Your task to perform on an android device: Open calendar and show me the fourth week of next month Image 0: 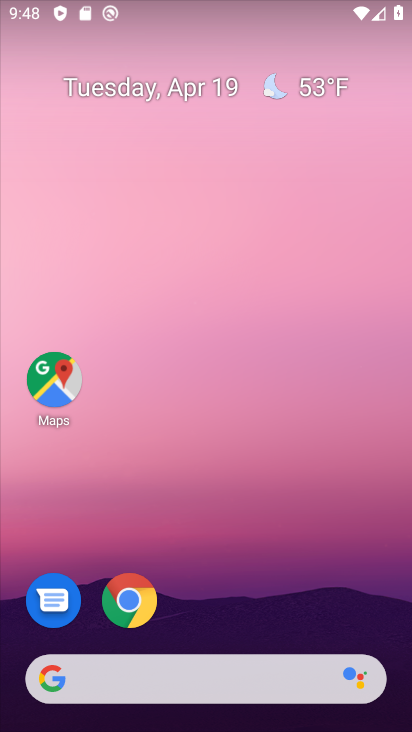
Step 0: drag from (181, 655) to (275, 132)
Your task to perform on an android device: Open calendar and show me the fourth week of next month Image 1: 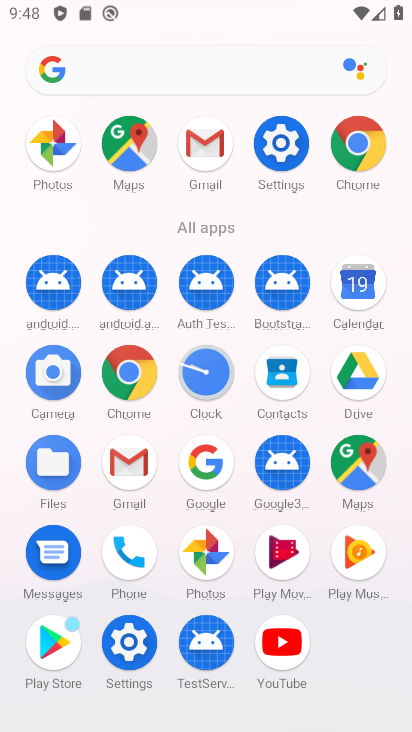
Step 1: click (364, 289)
Your task to perform on an android device: Open calendar and show me the fourth week of next month Image 2: 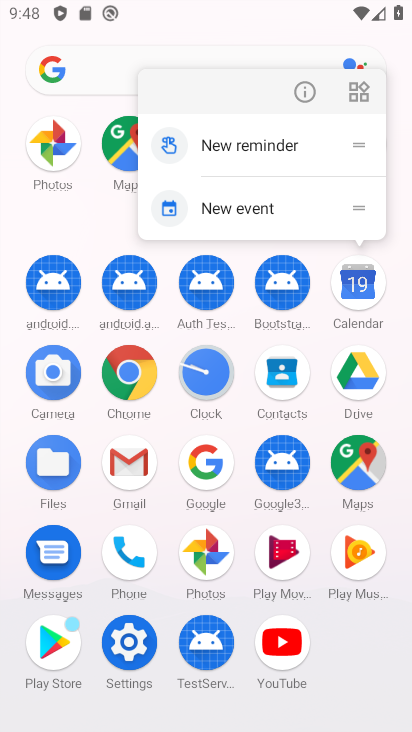
Step 2: click (361, 291)
Your task to perform on an android device: Open calendar and show me the fourth week of next month Image 3: 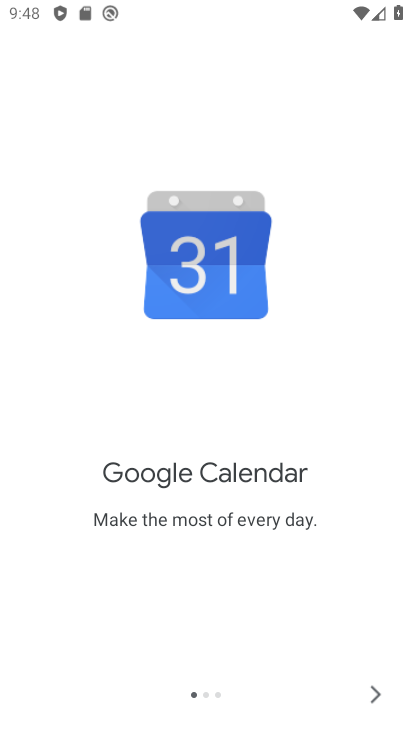
Step 3: click (373, 691)
Your task to perform on an android device: Open calendar and show me the fourth week of next month Image 4: 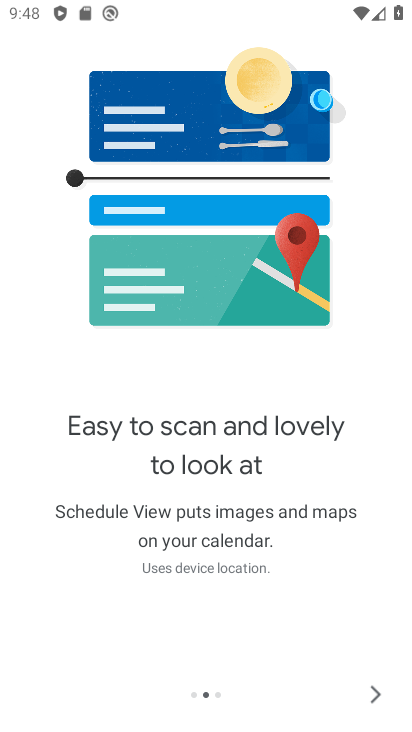
Step 4: click (373, 691)
Your task to perform on an android device: Open calendar and show me the fourth week of next month Image 5: 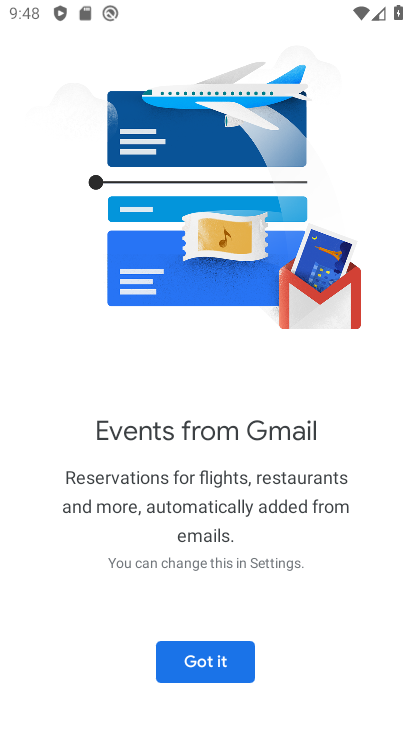
Step 5: click (179, 656)
Your task to perform on an android device: Open calendar and show me the fourth week of next month Image 6: 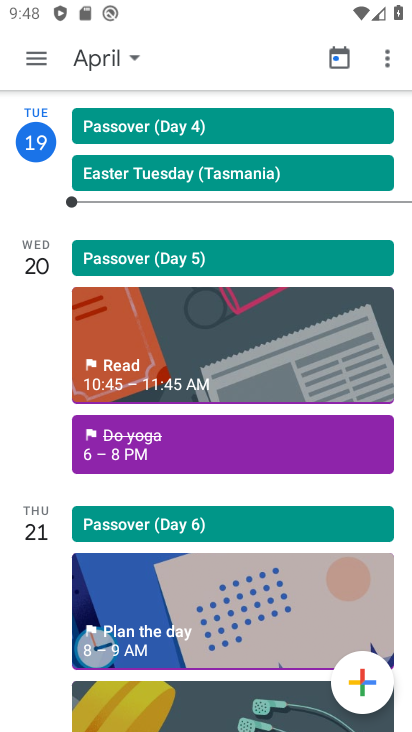
Step 6: click (38, 59)
Your task to perform on an android device: Open calendar and show me the fourth week of next month Image 7: 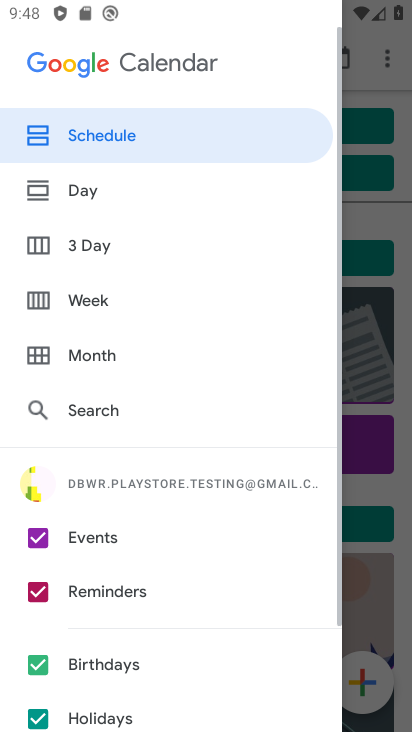
Step 7: click (131, 295)
Your task to perform on an android device: Open calendar and show me the fourth week of next month Image 8: 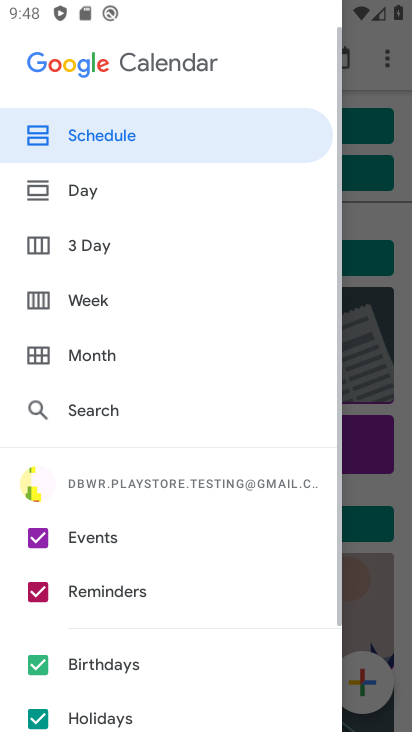
Step 8: click (135, 296)
Your task to perform on an android device: Open calendar and show me the fourth week of next month Image 9: 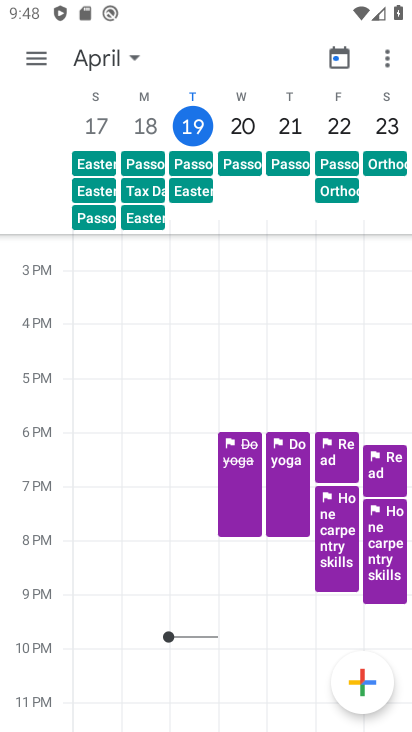
Step 9: click (98, 61)
Your task to perform on an android device: Open calendar and show me the fourth week of next month Image 10: 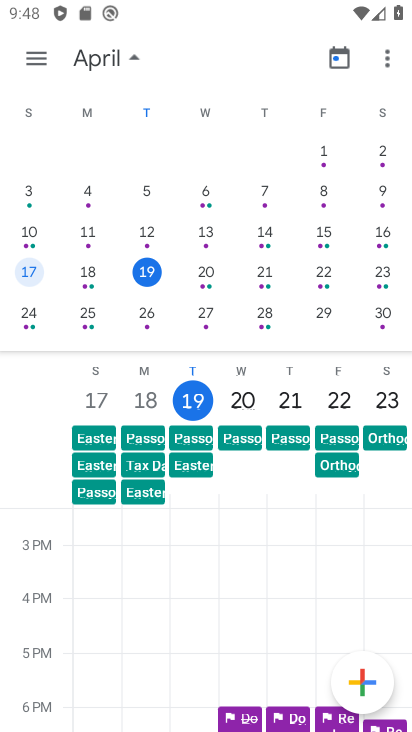
Step 10: drag from (373, 286) to (0, 283)
Your task to perform on an android device: Open calendar and show me the fourth week of next month Image 11: 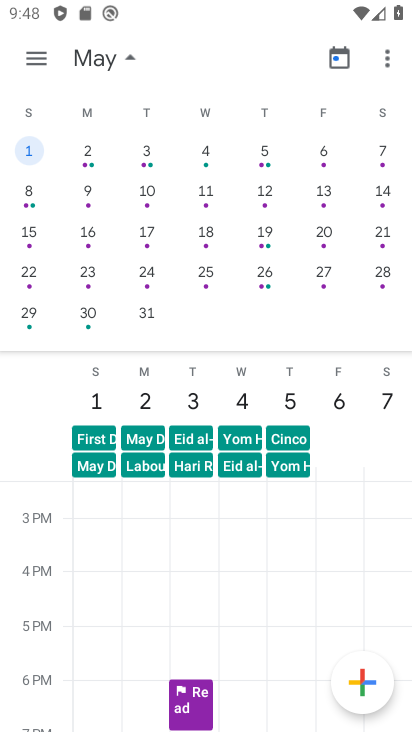
Step 11: click (38, 279)
Your task to perform on an android device: Open calendar and show me the fourth week of next month Image 12: 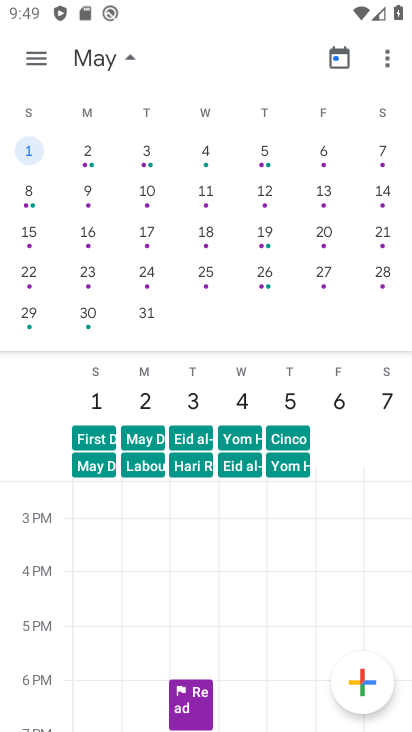
Step 12: click (35, 276)
Your task to perform on an android device: Open calendar and show me the fourth week of next month Image 13: 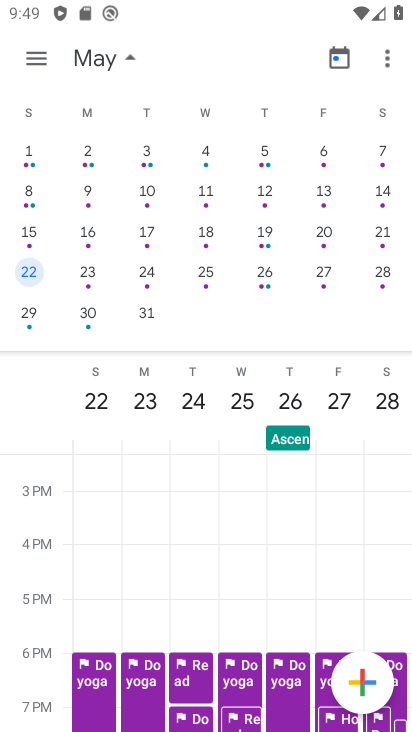
Step 13: click (128, 56)
Your task to perform on an android device: Open calendar and show me the fourth week of next month Image 14: 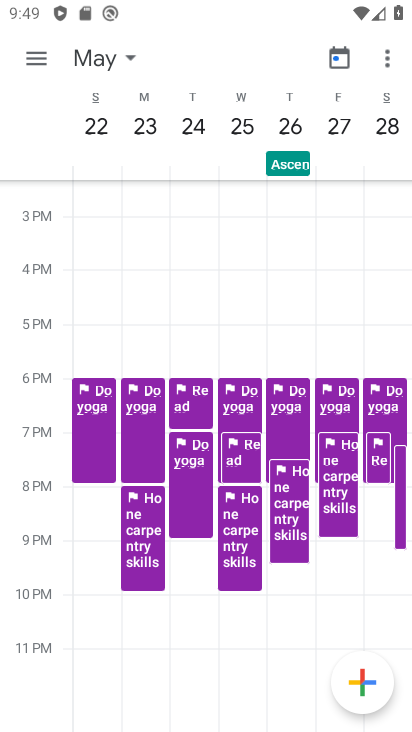
Step 14: task complete